Your task to perform on an android device: delete browsing data in the chrome app Image 0: 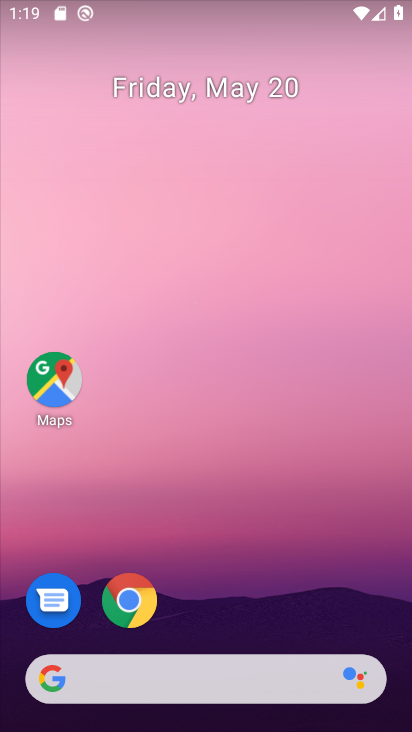
Step 0: click (123, 610)
Your task to perform on an android device: delete browsing data in the chrome app Image 1: 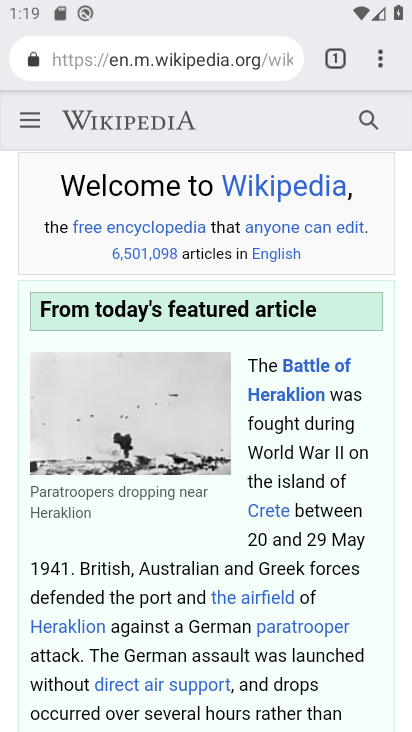
Step 1: click (382, 62)
Your task to perform on an android device: delete browsing data in the chrome app Image 2: 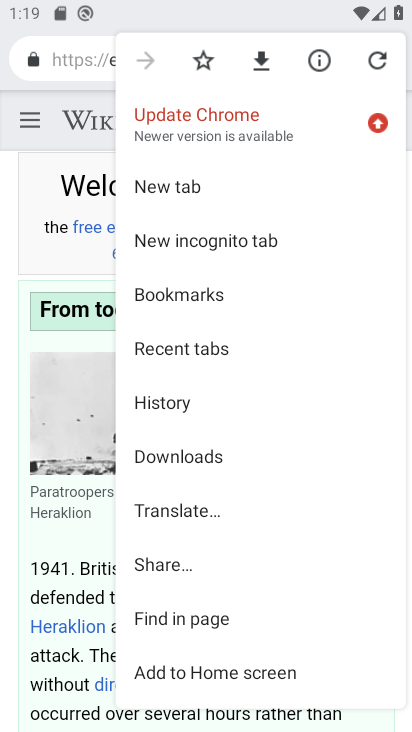
Step 2: click (202, 399)
Your task to perform on an android device: delete browsing data in the chrome app Image 3: 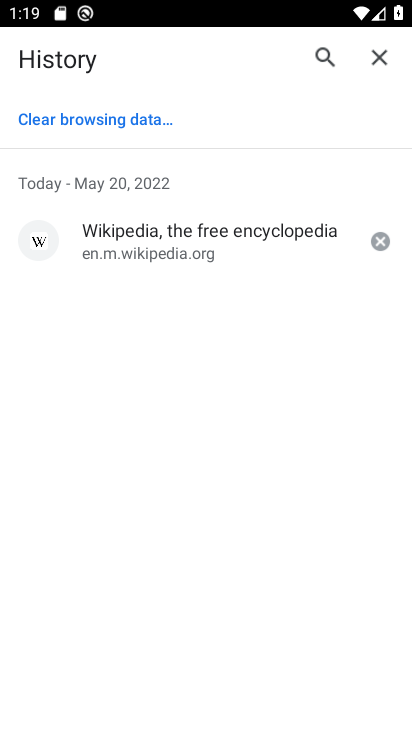
Step 3: click (101, 117)
Your task to perform on an android device: delete browsing data in the chrome app Image 4: 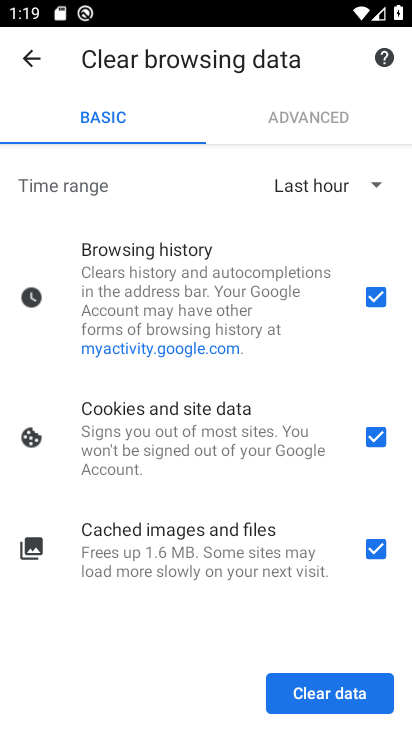
Step 4: click (322, 689)
Your task to perform on an android device: delete browsing data in the chrome app Image 5: 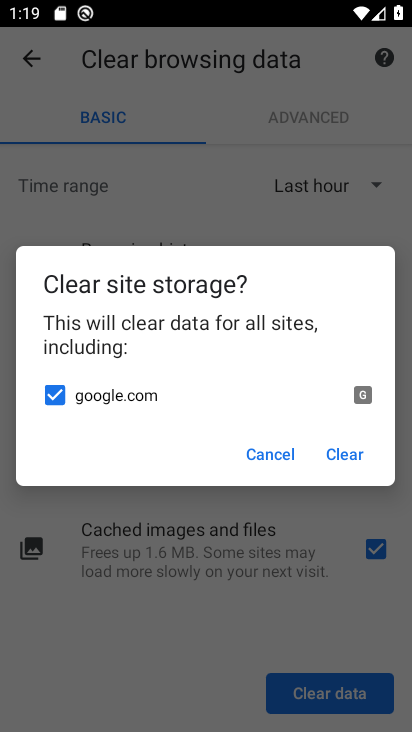
Step 5: click (342, 446)
Your task to perform on an android device: delete browsing data in the chrome app Image 6: 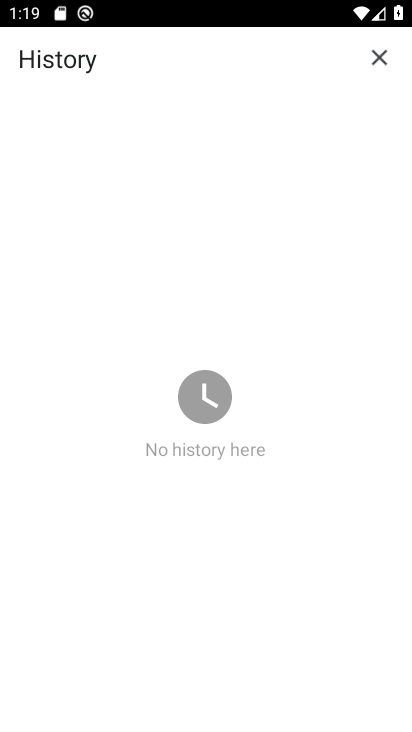
Step 6: task complete